Your task to perform on an android device: make emails show in primary in the gmail app Image 0: 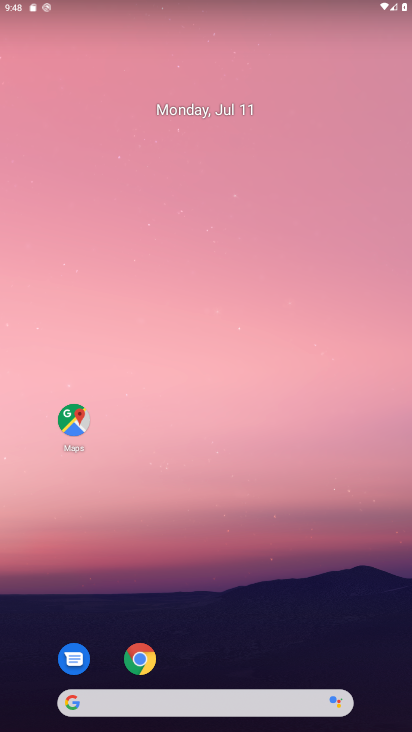
Step 0: drag from (233, 663) to (294, 152)
Your task to perform on an android device: make emails show in primary in the gmail app Image 1: 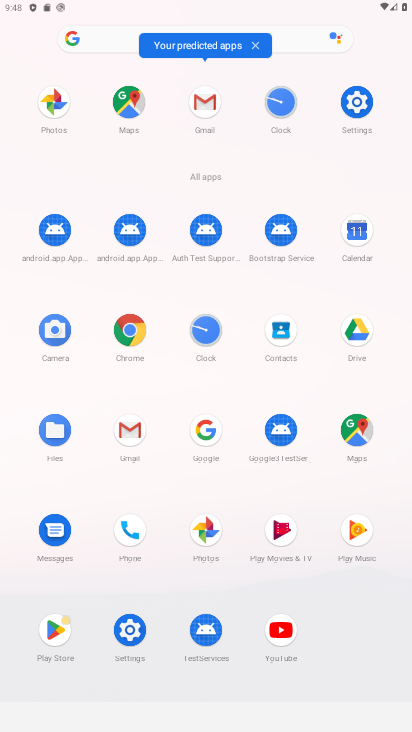
Step 1: click (149, 445)
Your task to perform on an android device: make emails show in primary in the gmail app Image 2: 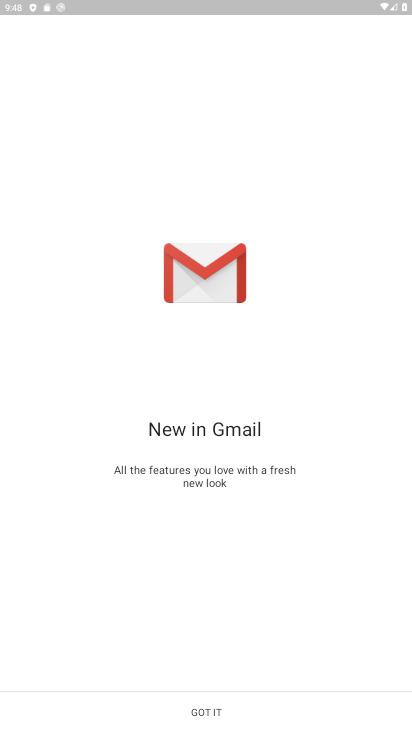
Step 2: click (234, 714)
Your task to perform on an android device: make emails show in primary in the gmail app Image 3: 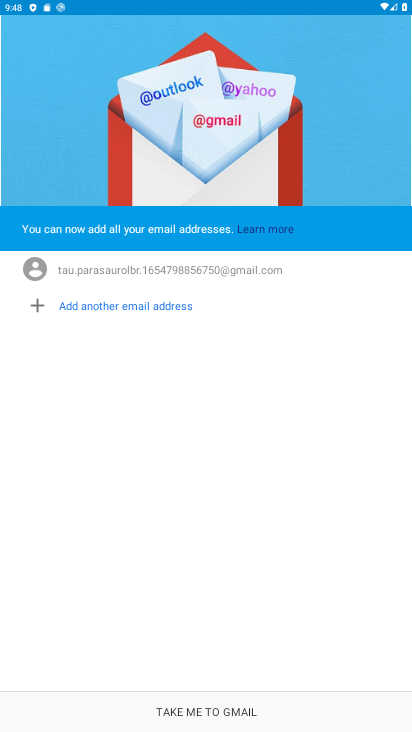
Step 3: click (233, 713)
Your task to perform on an android device: make emails show in primary in the gmail app Image 4: 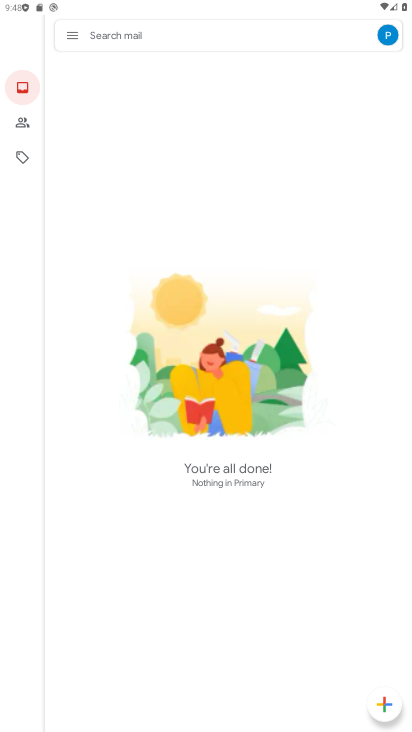
Step 4: task complete